Your task to perform on an android device: turn vacation reply on in the gmail app Image 0: 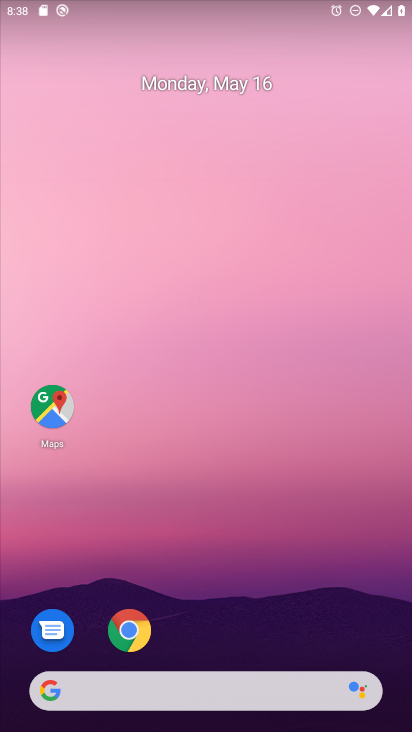
Step 0: drag from (166, 599) to (64, 38)
Your task to perform on an android device: turn vacation reply on in the gmail app Image 1: 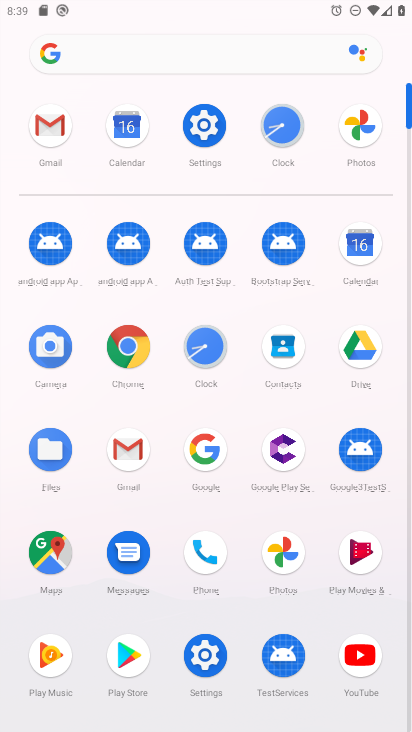
Step 1: click (38, 118)
Your task to perform on an android device: turn vacation reply on in the gmail app Image 2: 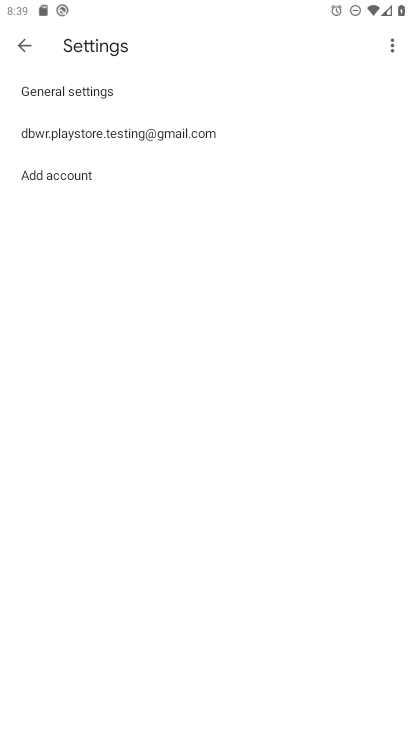
Step 2: click (395, 52)
Your task to perform on an android device: turn vacation reply on in the gmail app Image 3: 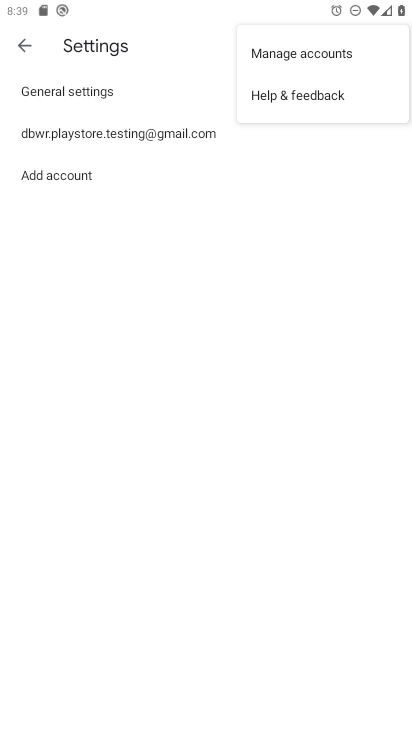
Step 3: press back button
Your task to perform on an android device: turn vacation reply on in the gmail app Image 4: 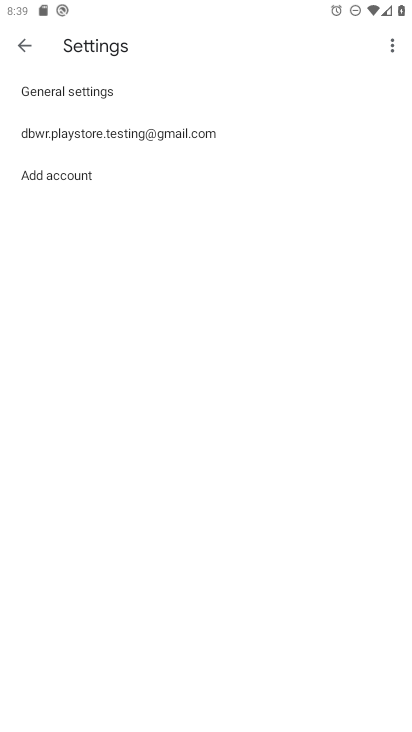
Step 4: press back button
Your task to perform on an android device: turn vacation reply on in the gmail app Image 5: 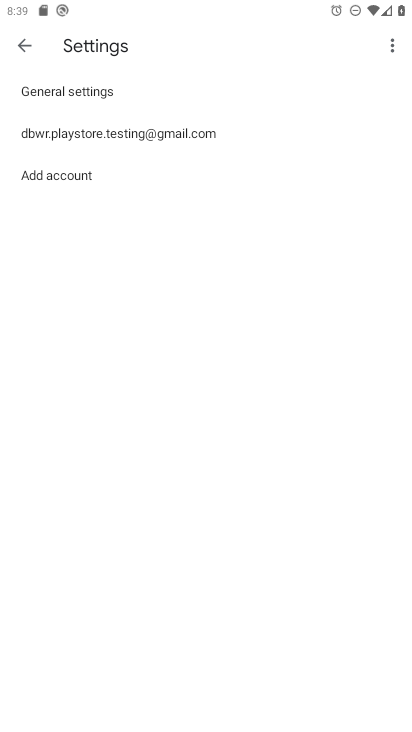
Step 5: press back button
Your task to perform on an android device: turn vacation reply on in the gmail app Image 6: 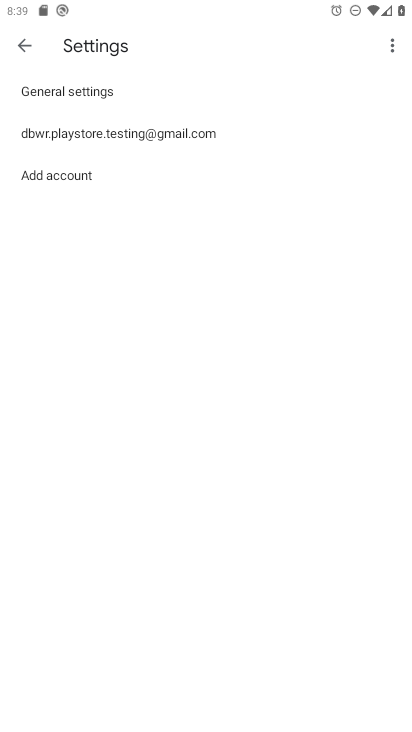
Step 6: press back button
Your task to perform on an android device: turn vacation reply on in the gmail app Image 7: 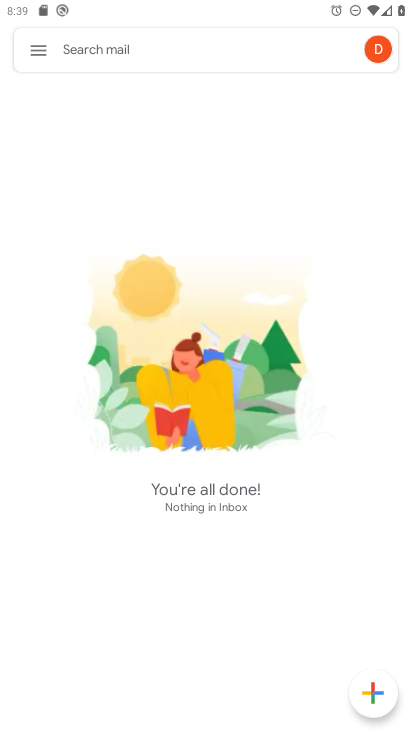
Step 7: click (30, 48)
Your task to perform on an android device: turn vacation reply on in the gmail app Image 8: 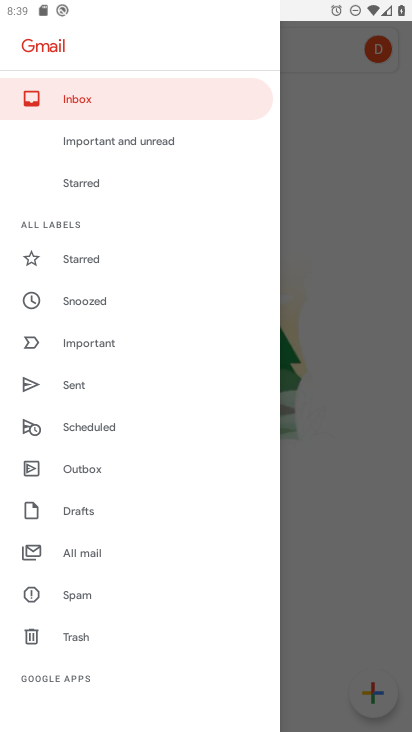
Step 8: drag from (154, 491) to (135, 145)
Your task to perform on an android device: turn vacation reply on in the gmail app Image 9: 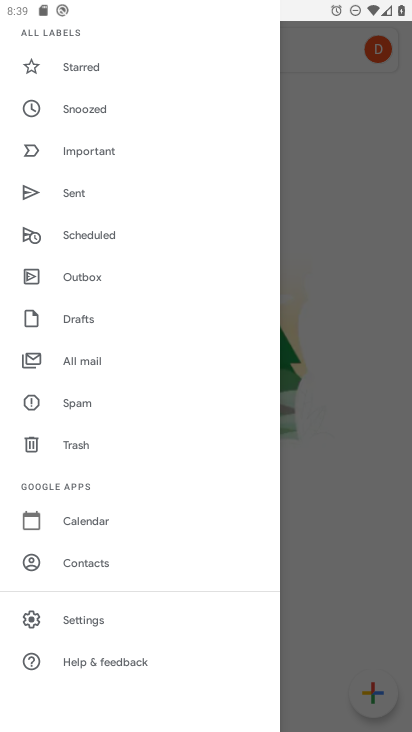
Step 9: click (130, 619)
Your task to perform on an android device: turn vacation reply on in the gmail app Image 10: 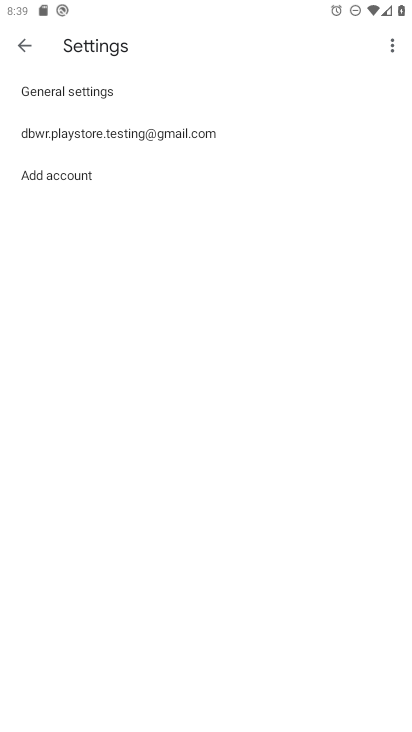
Step 10: press back button
Your task to perform on an android device: turn vacation reply on in the gmail app Image 11: 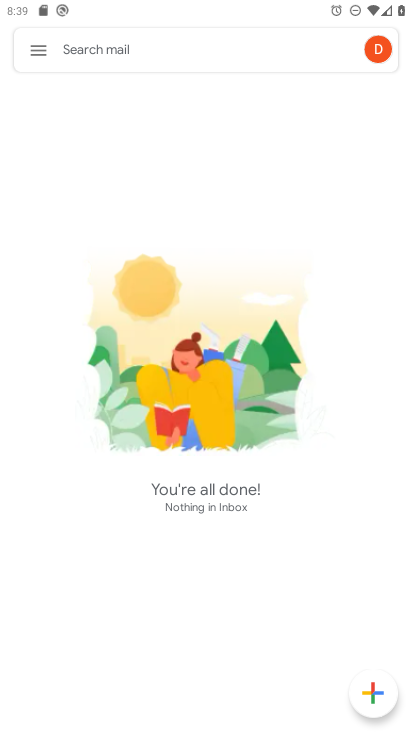
Step 11: click (31, 46)
Your task to perform on an android device: turn vacation reply on in the gmail app Image 12: 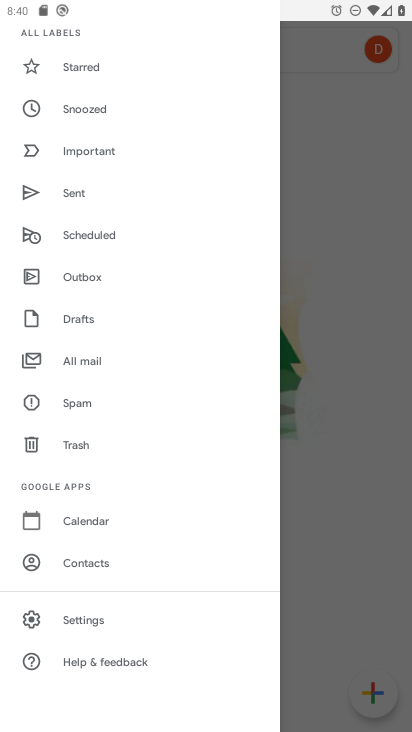
Step 12: task complete